Your task to perform on an android device: change the clock display to show seconds Image 0: 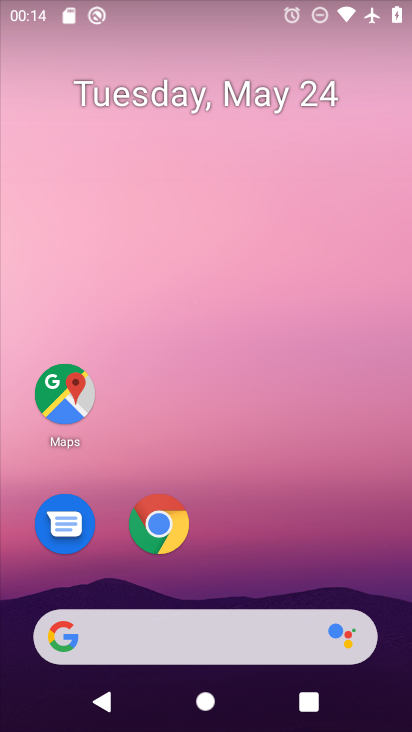
Step 0: drag from (244, 587) to (262, 177)
Your task to perform on an android device: change the clock display to show seconds Image 1: 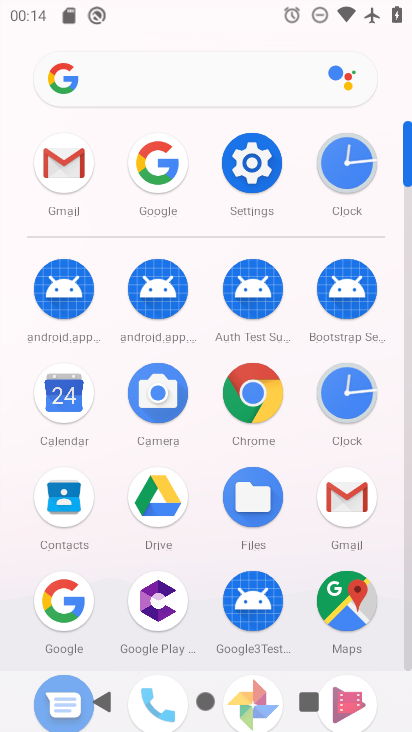
Step 1: click (335, 164)
Your task to perform on an android device: change the clock display to show seconds Image 2: 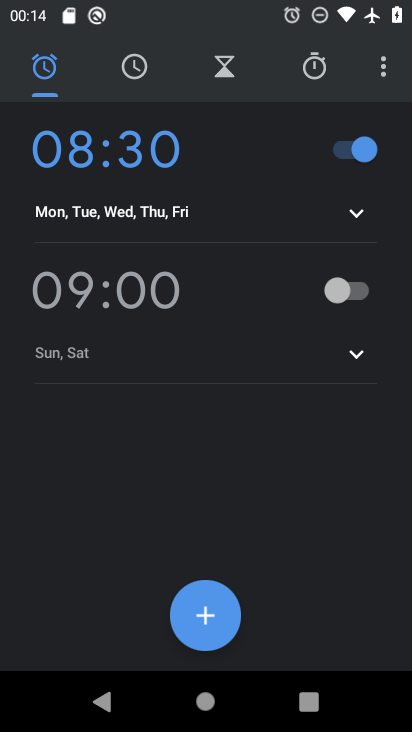
Step 2: click (385, 69)
Your task to perform on an android device: change the clock display to show seconds Image 3: 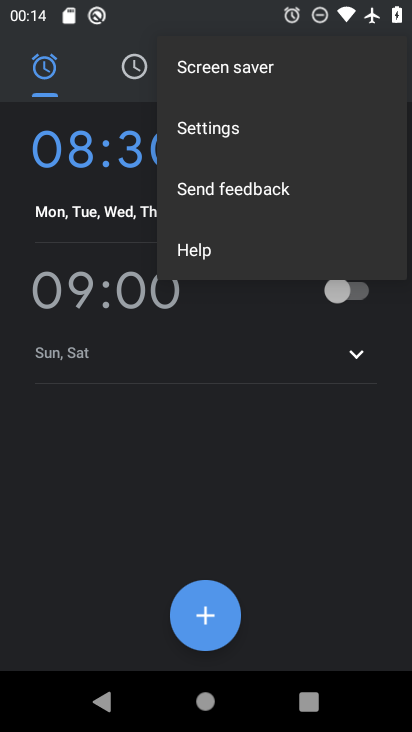
Step 3: click (261, 122)
Your task to perform on an android device: change the clock display to show seconds Image 4: 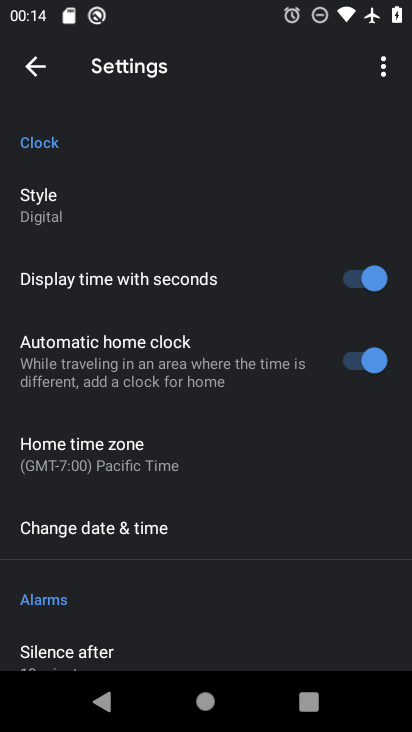
Step 4: task complete